Your task to perform on an android device: What's on my calendar tomorrow? Image 0: 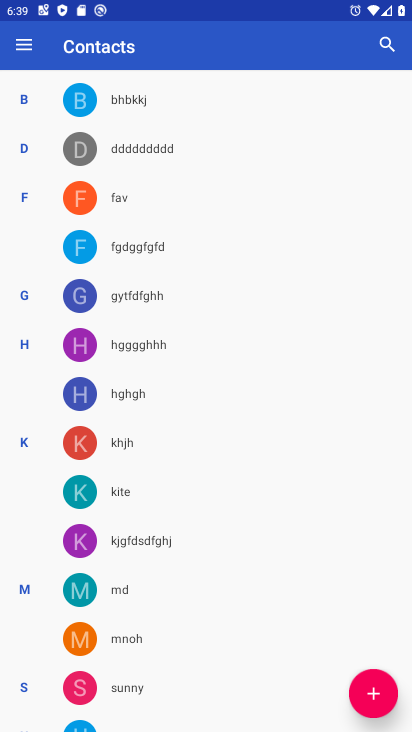
Step 0: press home button
Your task to perform on an android device: What's on my calendar tomorrow? Image 1: 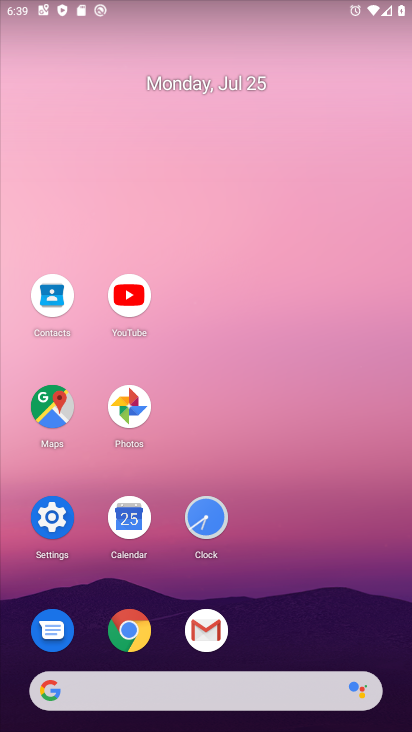
Step 1: click (132, 523)
Your task to perform on an android device: What's on my calendar tomorrow? Image 2: 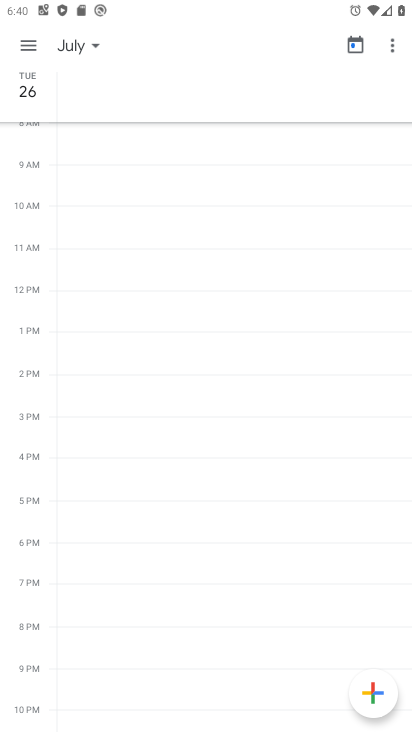
Step 2: task complete